Your task to perform on an android device: Search for vegetarian restaurants on Maps Image 0: 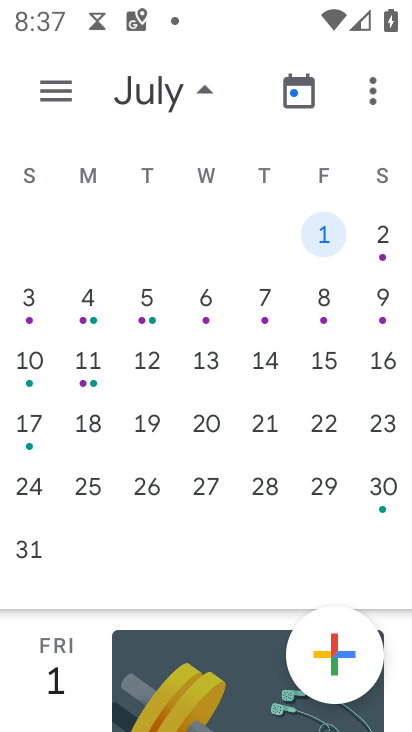
Step 0: press home button
Your task to perform on an android device: Search for vegetarian restaurants on Maps Image 1: 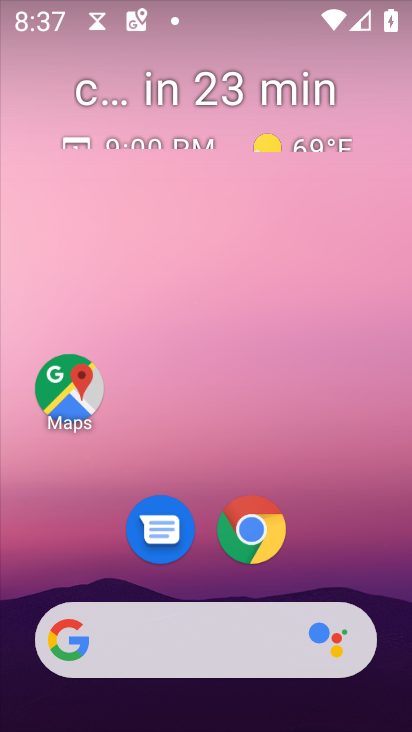
Step 1: click (80, 378)
Your task to perform on an android device: Search for vegetarian restaurants on Maps Image 2: 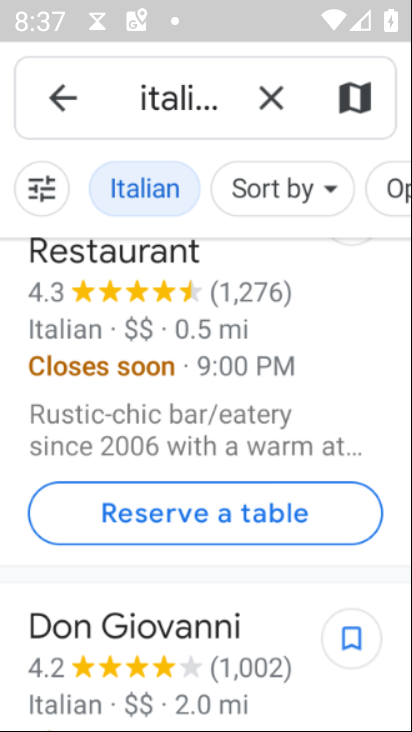
Step 2: click (286, 102)
Your task to perform on an android device: Search for vegetarian restaurants on Maps Image 3: 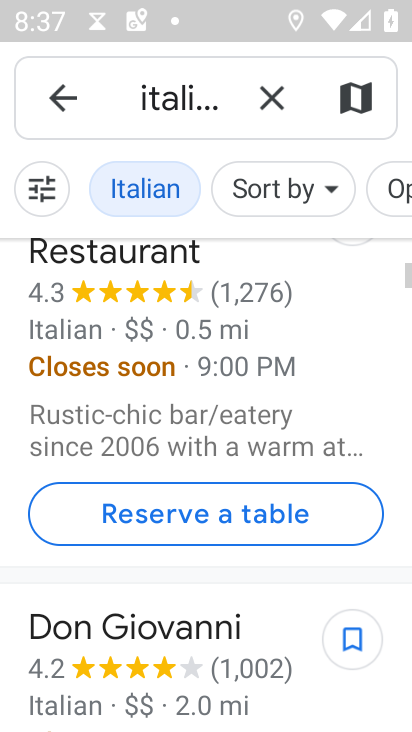
Step 3: click (270, 95)
Your task to perform on an android device: Search for vegetarian restaurants on Maps Image 4: 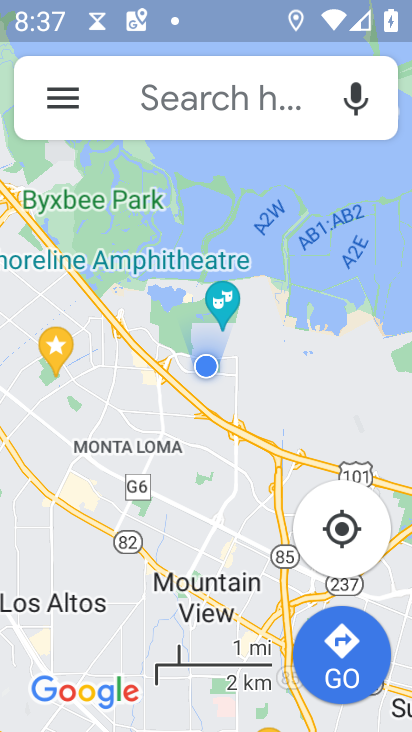
Step 4: click (245, 100)
Your task to perform on an android device: Search for vegetarian restaurants on Maps Image 5: 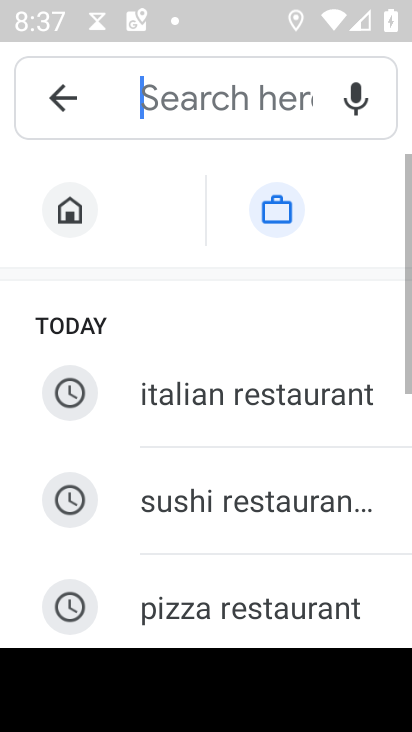
Step 5: drag from (293, 530) to (224, 86)
Your task to perform on an android device: Search for vegetarian restaurants on Maps Image 6: 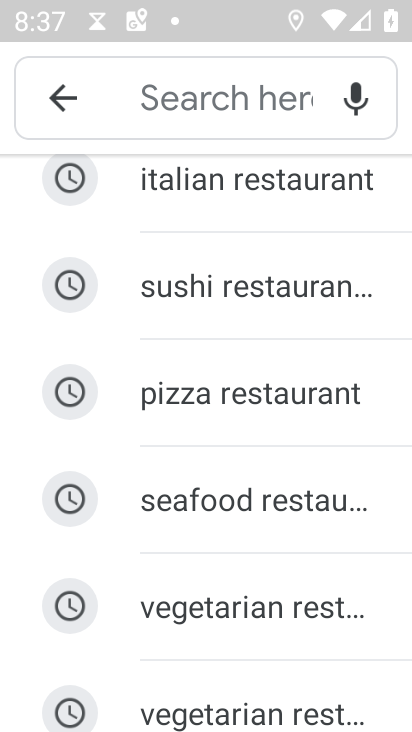
Step 6: click (197, 594)
Your task to perform on an android device: Search for vegetarian restaurants on Maps Image 7: 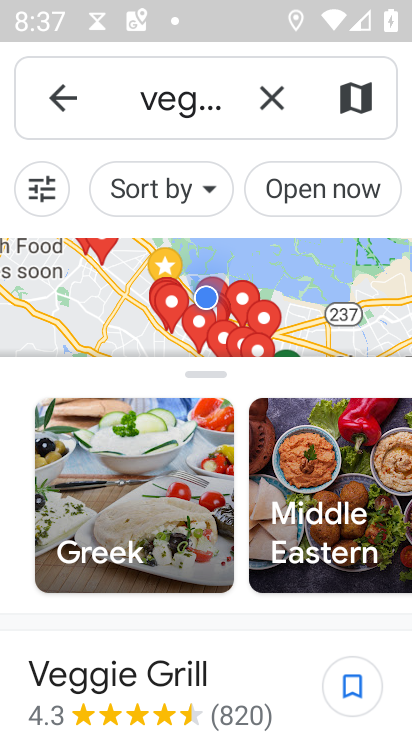
Step 7: task complete